Your task to perform on an android device: Search for pizza restaurants on Maps Image 0: 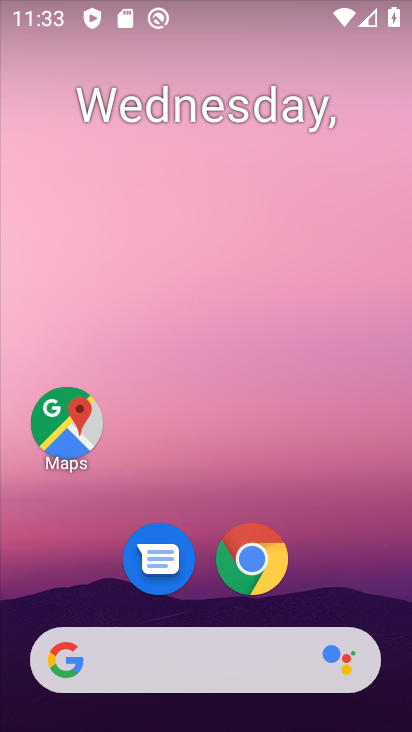
Step 0: drag from (328, 481) to (189, 1)
Your task to perform on an android device: Search for pizza restaurants on Maps Image 1: 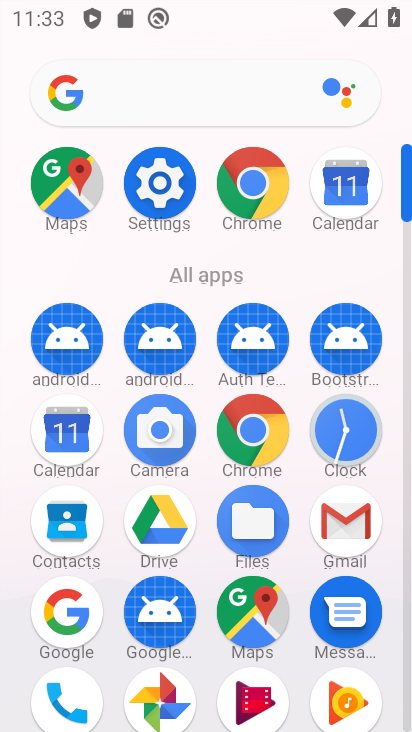
Step 1: click (270, 634)
Your task to perform on an android device: Search for pizza restaurants on Maps Image 2: 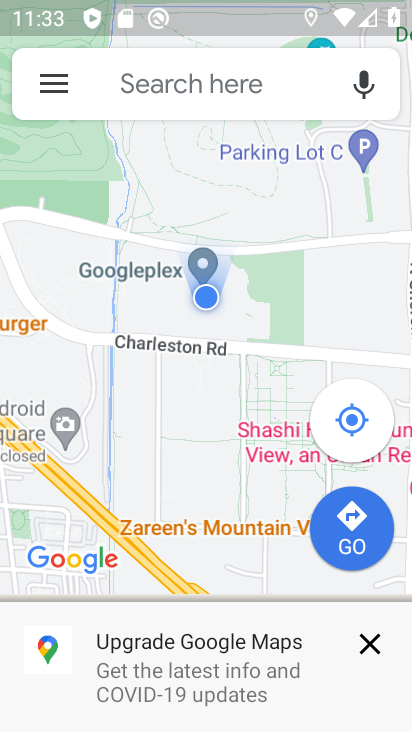
Step 2: click (206, 95)
Your task to perform on an android device: Search for pizza restaurants on Maps Image 3: 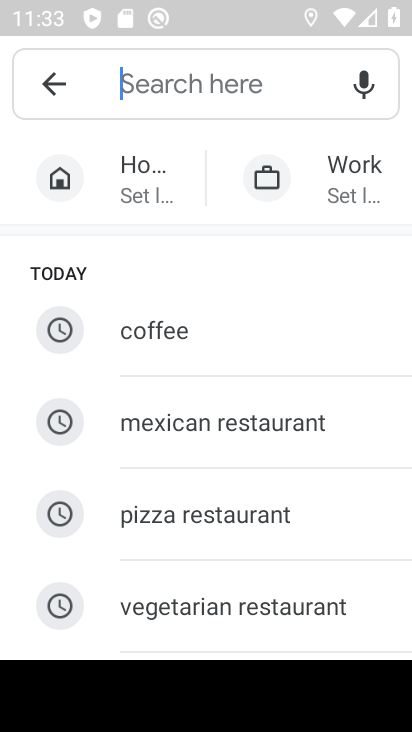
Step 3: click (187, 525)
Your task to perform on an android device: Search for pizza restaurants on Maps Image 4: 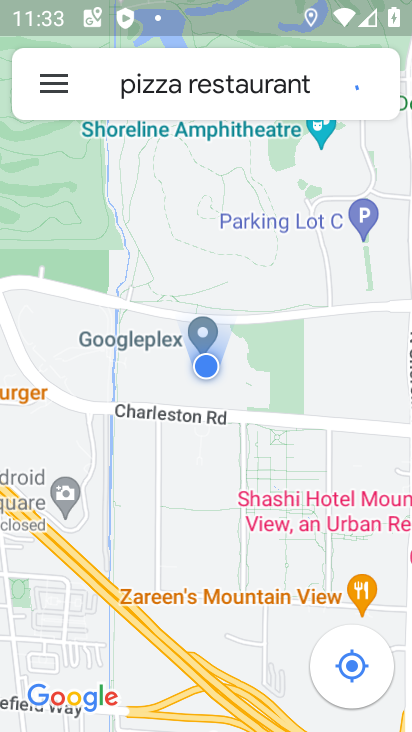
Step 4: task complete